Your task to perform on an android device: See recent photos Image 0: 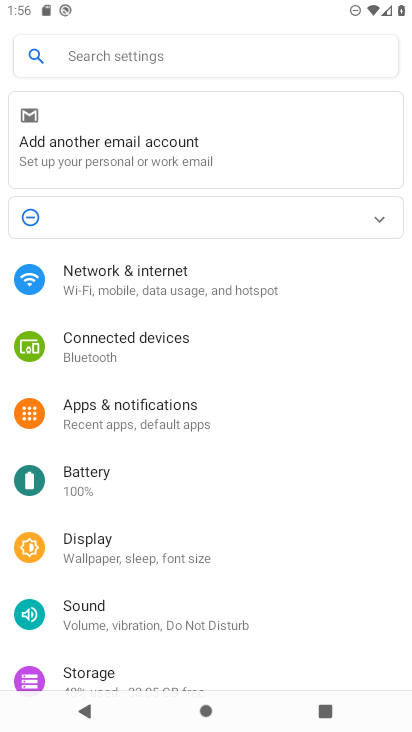
Step 0: press home button
Your task to perform on an android device: See recent photos Image 1: 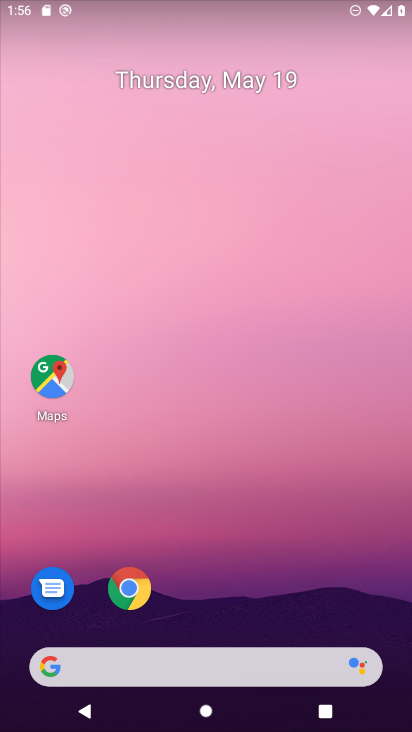
Step 1: drag from (372, 617) to (375, 42)
Your task to perform on an android device: See recent photos Image 2: 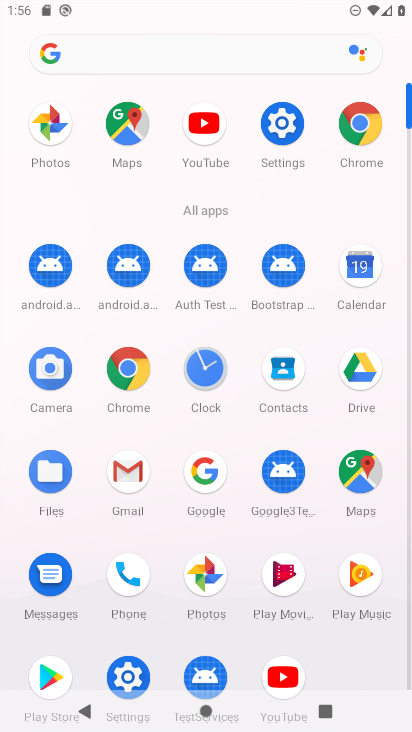
Step 2: click (198, 573)
Your task to perform on an android device: See recent photos Image 3: 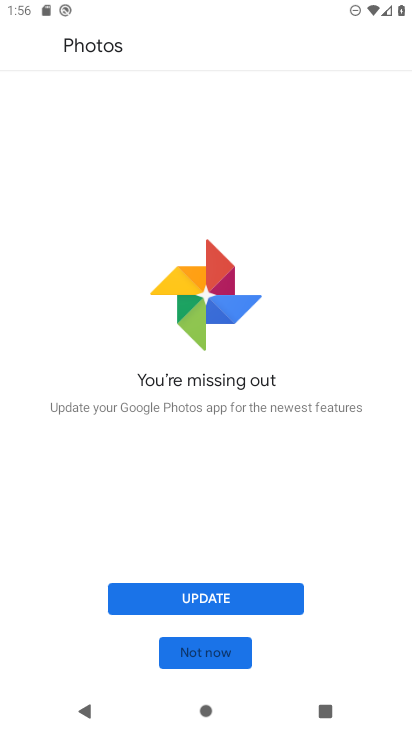
Step 3: click (189, 647)
Your task to perform on an android device: See recent photos Image 4: 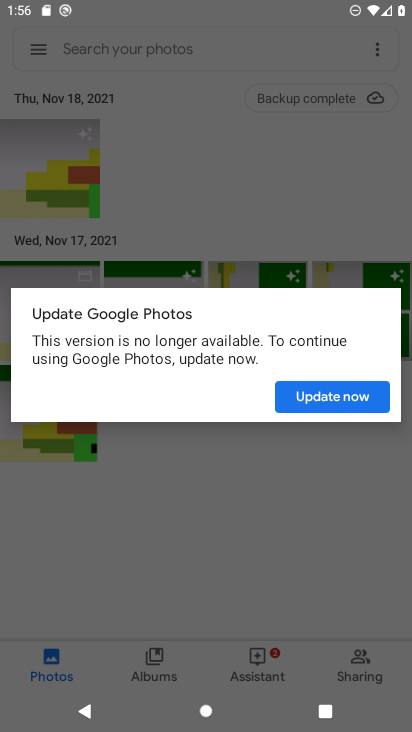
Step 4: click (312, 399)
Your task to perform on an android device: See recent photos Image 5: 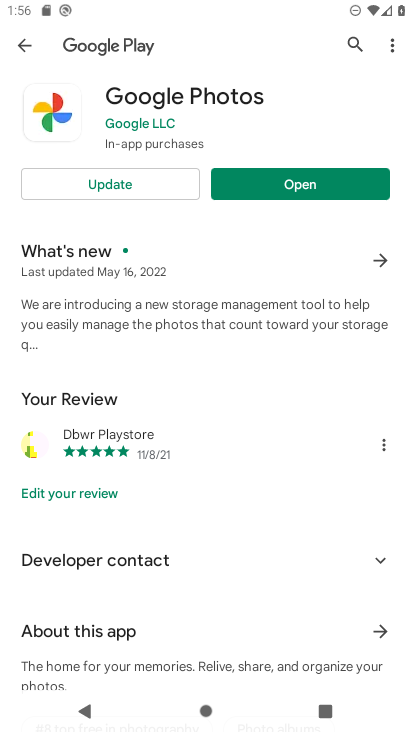
Step 5: click (283, 183)
Your task to perform on an android device: See recent photos Image 6: 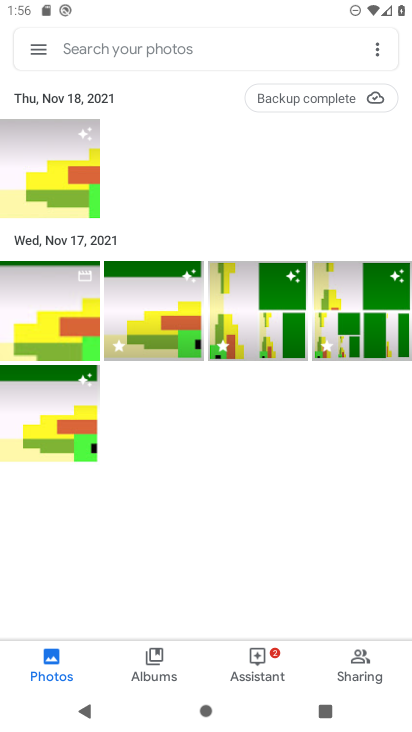
Step 6: task complete